Your task to perform on an android device: Open calendar and show me the third week of next month Image 0: 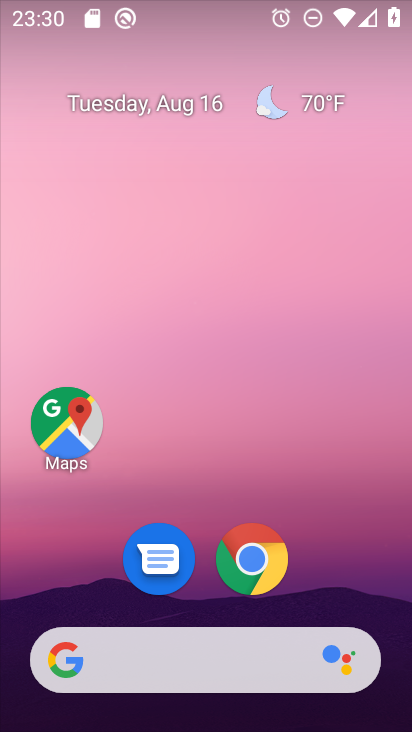
Step 0: drag from (158, 673) to (218, 190)
Your task to perform on an android device: Open calendar and show me the third week of next month Image 1: 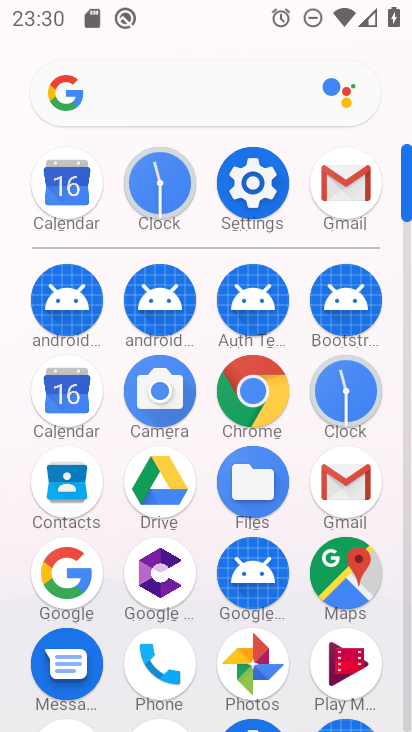
Step 1: click (65, 187)
Your task to perform on an android device: Open calendar and show me the third week of next month Image 2: 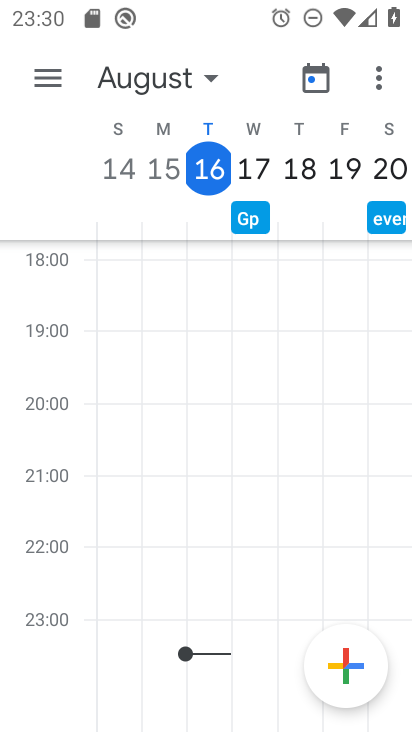
Step 2: click (319, 82)
Your task to perform on an android device: Open calendar and show me the third week of next month Image 3: 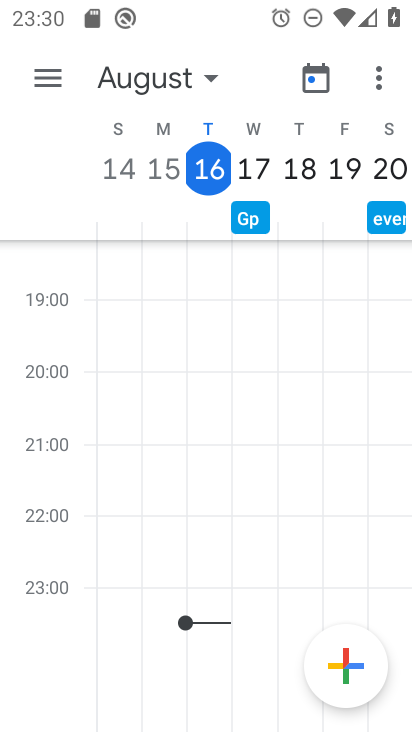
Step 3: click (207, 71)
Your task to perform on an android device: Open calendar and show me the third week of next month Image 4: 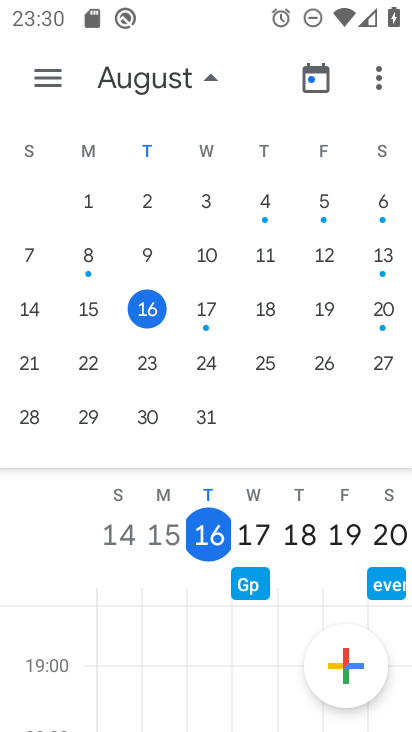
Step 4: drag from (392, 285) to (6, 304)
Your task to perform on an android device: Open calendar and show me the third week of next month Image 5: 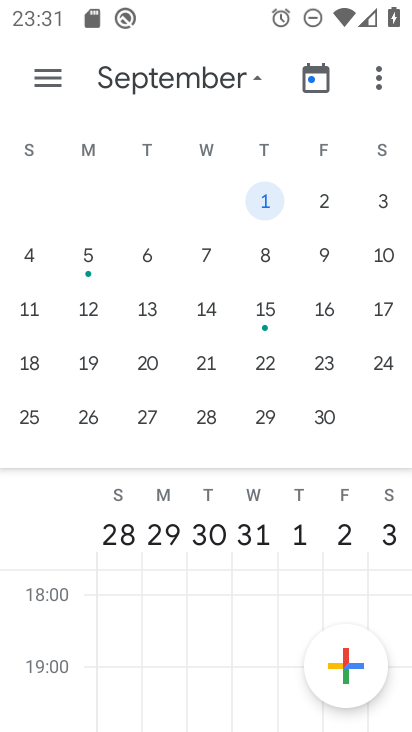
Step 5: click (89, 365)
Your task to perform on an android device: Open calendar and show me the third week of next month Image 6: 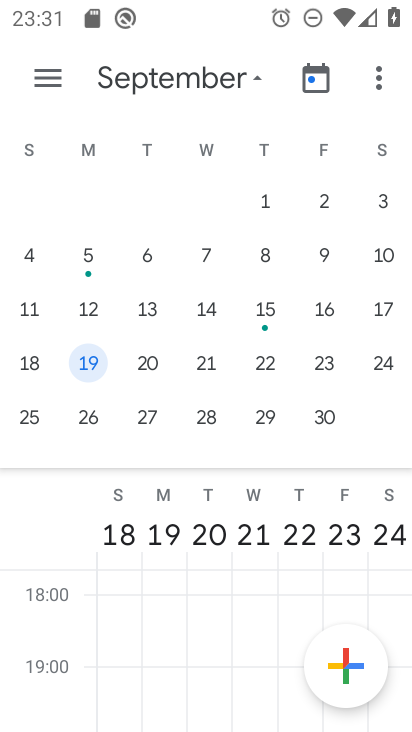
Step 6: click (53, 75)
Your task to perform on an android device: Open calendar and show me the third week of next month Image 7: 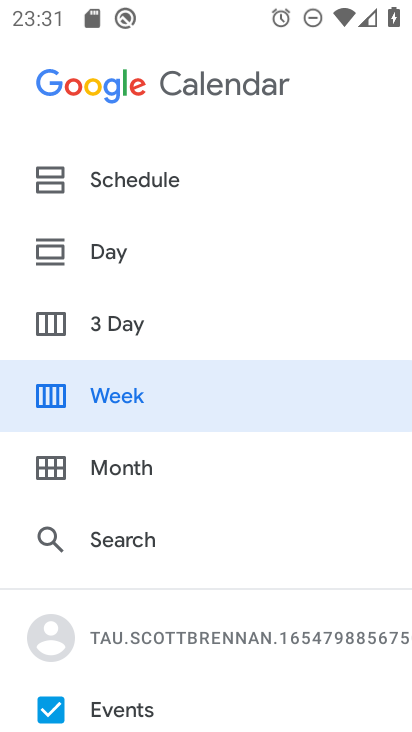
Step 7: click (155, 388)
Your task to perform on an android device: Open calendar and show me the third week of next month Image 8: 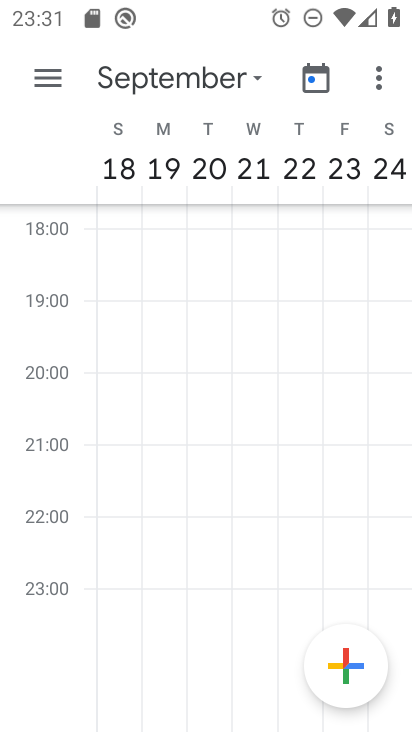
Step 8: task complete